Your task to perform on an android device: Open Chrome and go to the settings page Image 0: 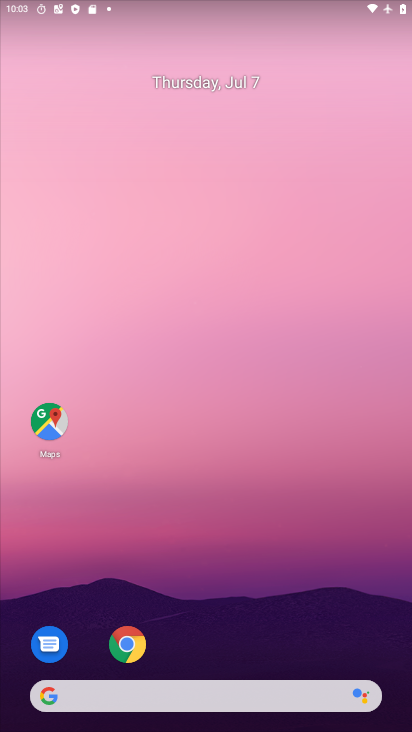
Step 0: click (129, 643)
Your task to perform on an android device: Open Chrome and go to the settings page Image 1: 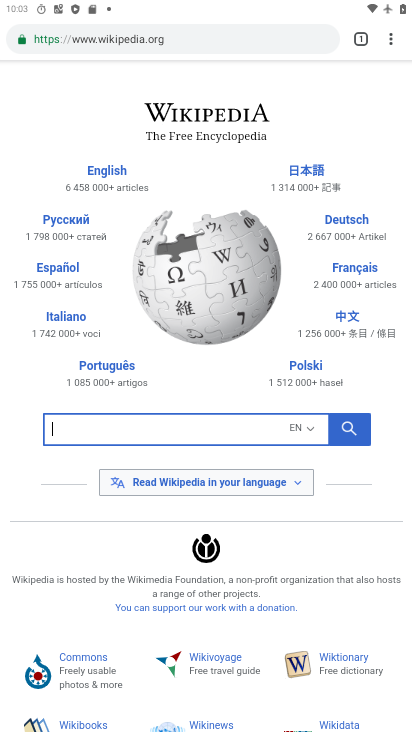
Step 1: task complete